Your task to perform on an android device: Show me the alarms in the clock app Image 0: 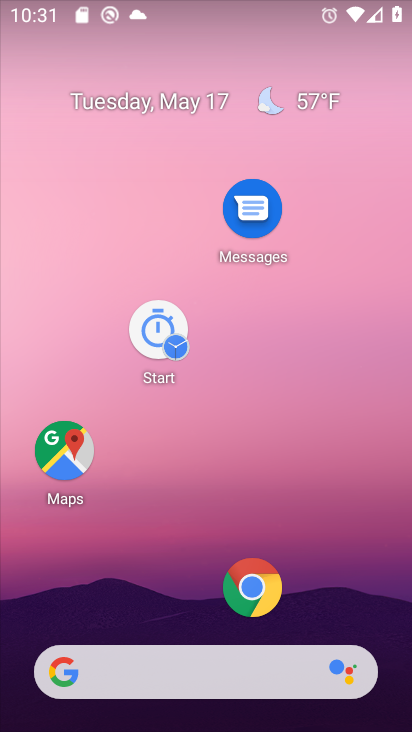
Step 0: drag from (307, 670) to (200, 198)
Your task to perform on an android device: Show me the alarms in the clock app Image 1: 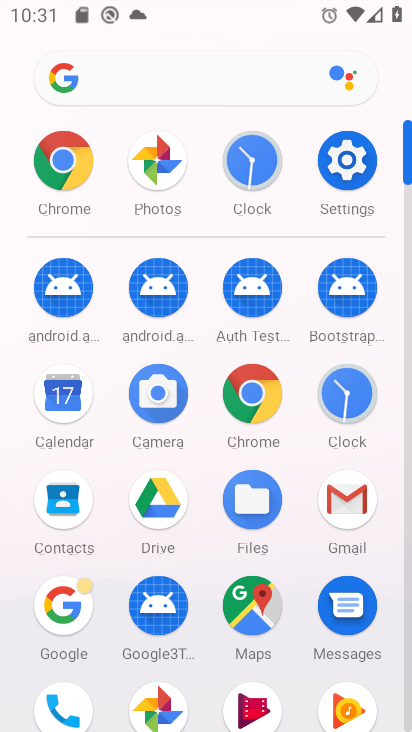
Step 1: click (350, 390)
Your task to perform on an android device: Show me the alarms in the clock app Image 2: 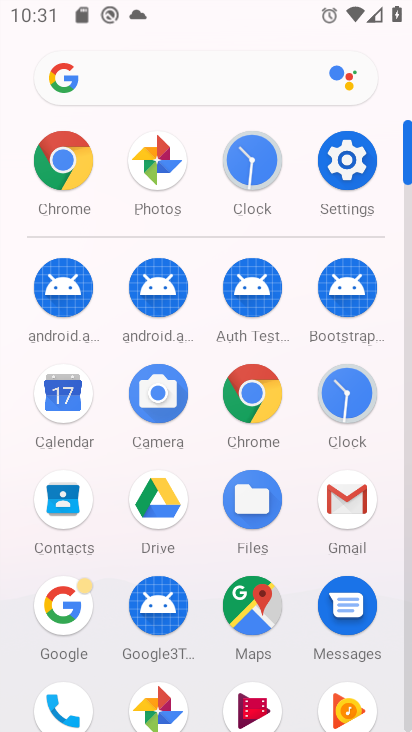
Step 2: click (350, 390)
Your task to perform on an android device: Show me the alarms in the clock app Image 3: 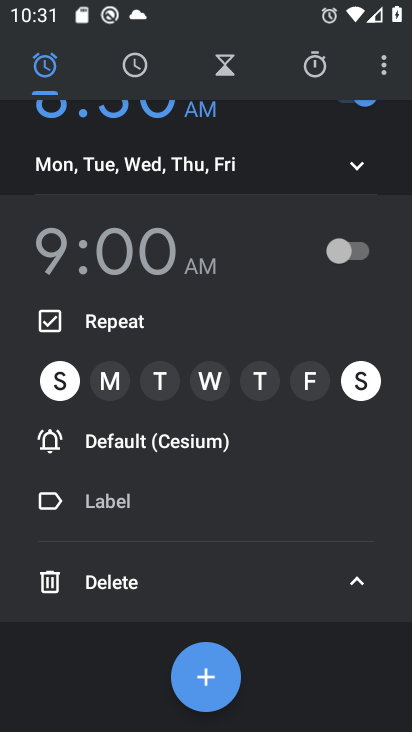
Step 3: click (334, 237)
Your task to perform on an android device: Show me the alarms in the clock app Image 4: 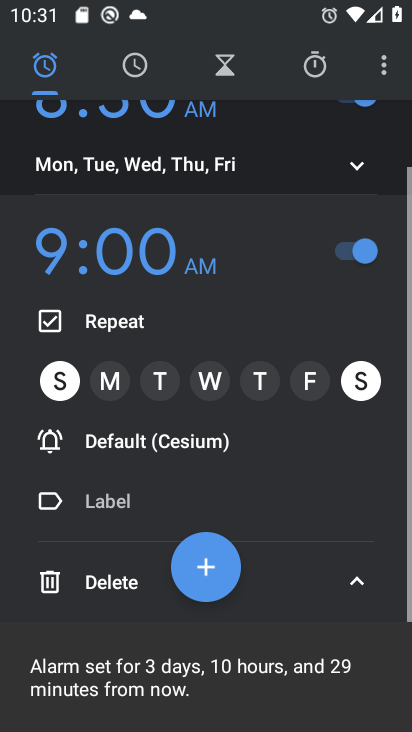
Step 4: click (333, 284)
Your task to perform on an android device: Show me the alarms in the clock app Image 5: 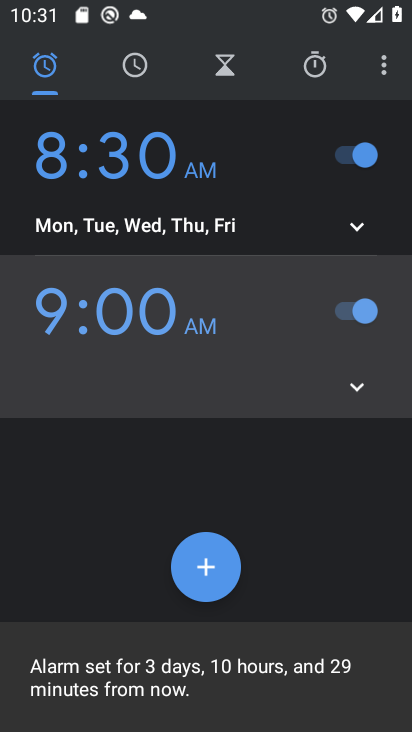
Step 5: task complete